Your task to perform on an android device: refresh tabs in the chrome app Image 0: 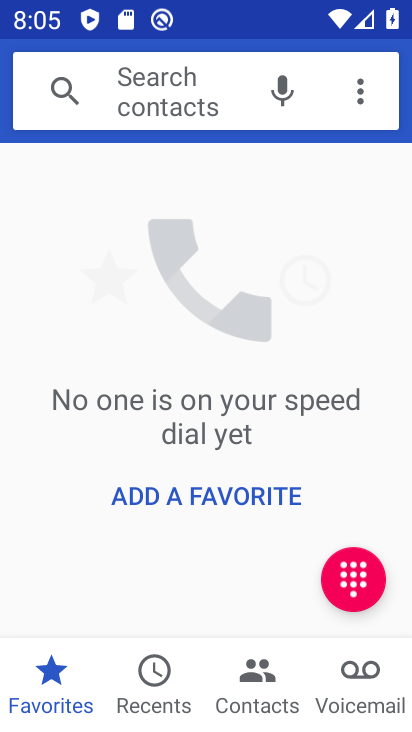
Step 0: press back button
Your task to perform on an android device: refresh tabs in the chrome app Image 1: 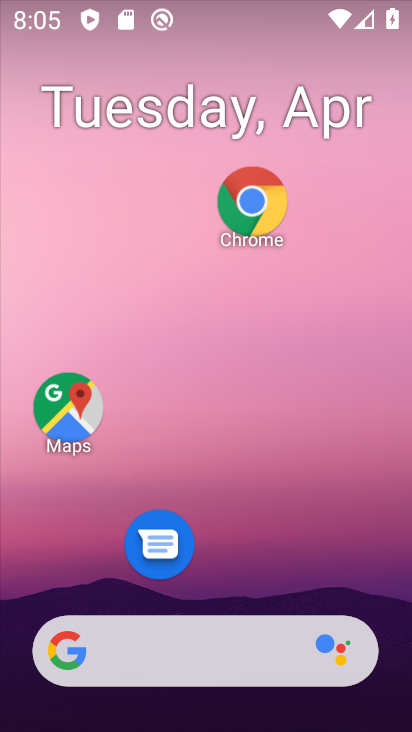
Step 1: click (264, 207)
Your task to perform on an android device: refresh tabs in the chrome app Image 2: 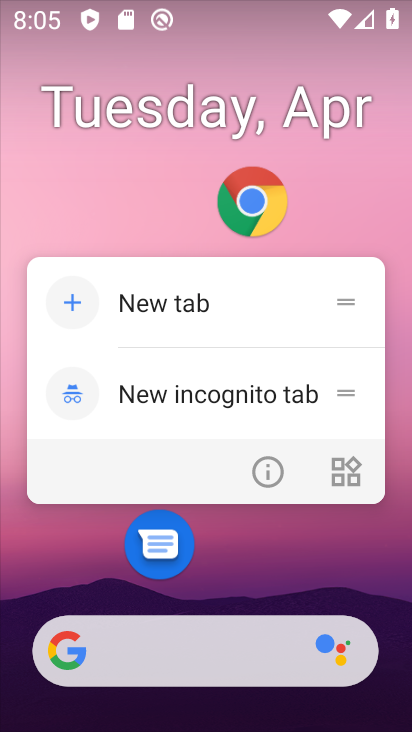
Step 2: click (248, 192)
Your task to perform on an android device: refresh tabs in the chrome app Image 3: 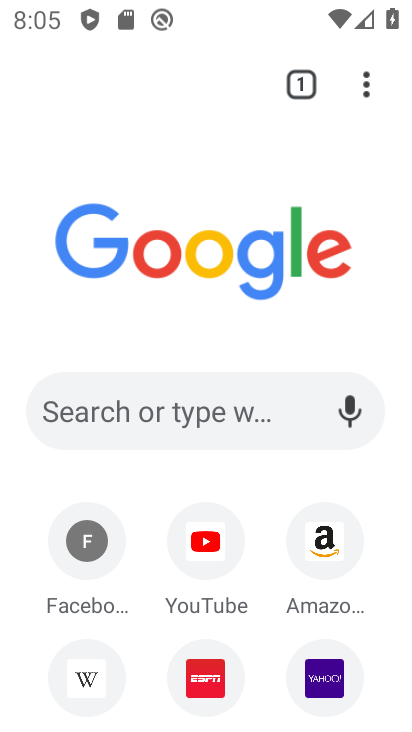
Step 3: click (362, 77)
Your task to perform on an android device: refresh tabs in the chrome app Image 4: 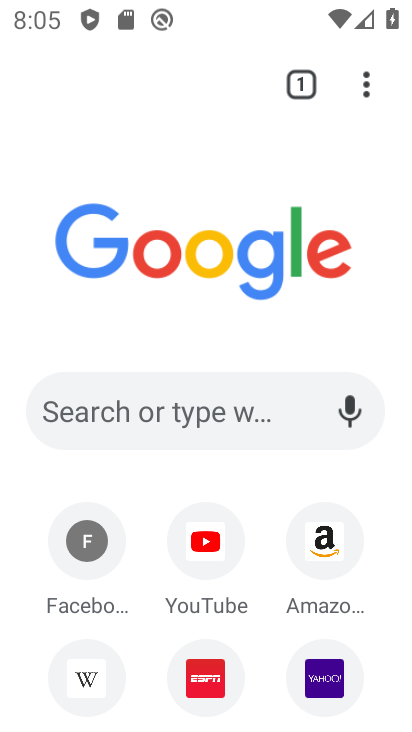
Step 4: click (373, 78)
Your task to perform on an android device: refresh tabs in the chrome app Image 5: 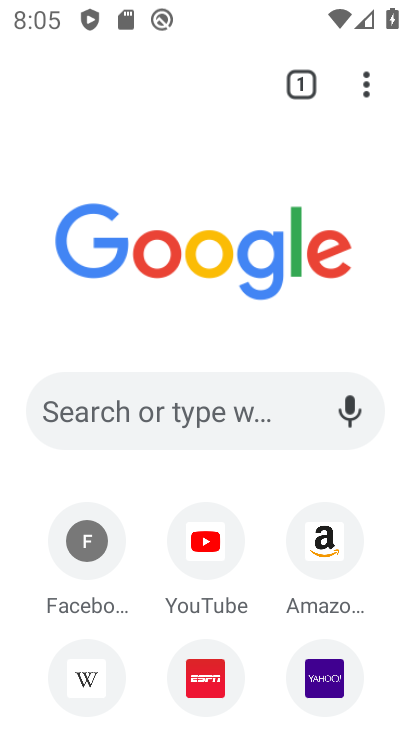
Step 5: click (352, 81)
Your task to perform on an android device: refresh tabs in the chrome app Image 6: 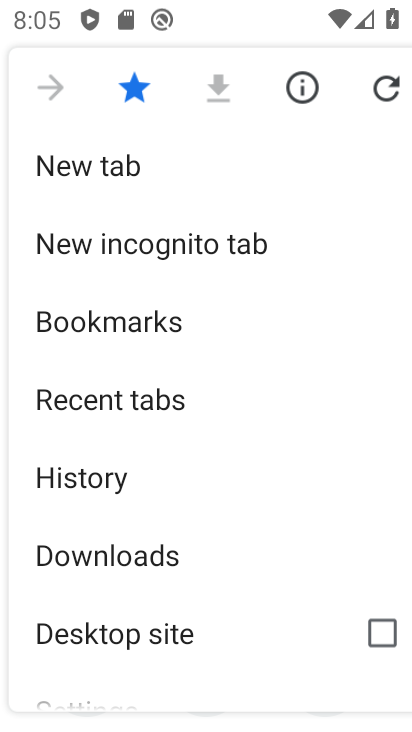
Step 6: click (383, 88)
Your task to perform on an android device: refresh tabs in the chrome app Image 7: 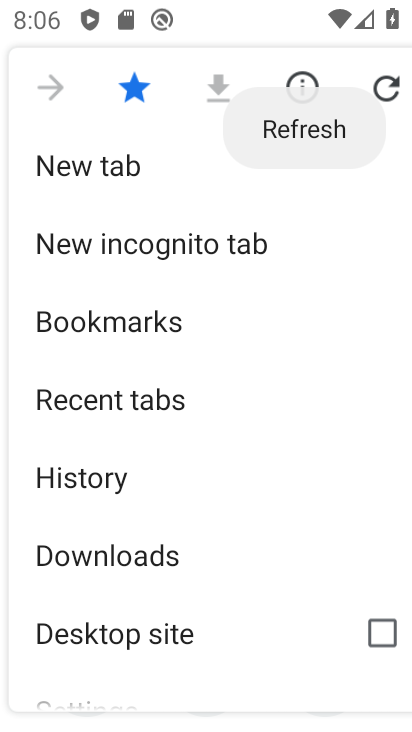
Step 7: task complete